Your task to perform on an android device: turn off javascript in the chrome app Image 0: 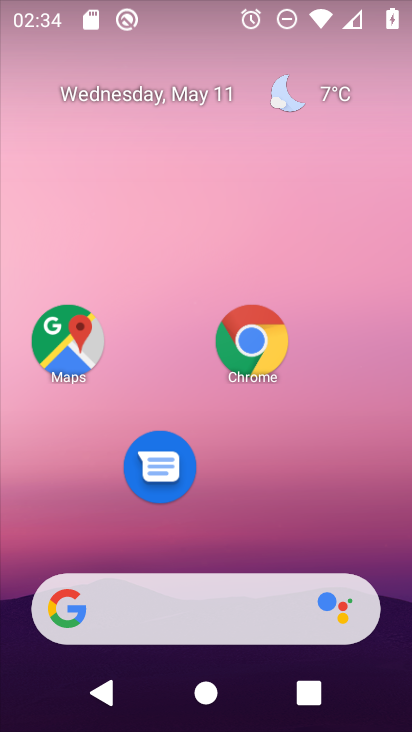
Step 0: press home button
Your task to perform on an android device: turn off javascript in the chrome app Image 1: 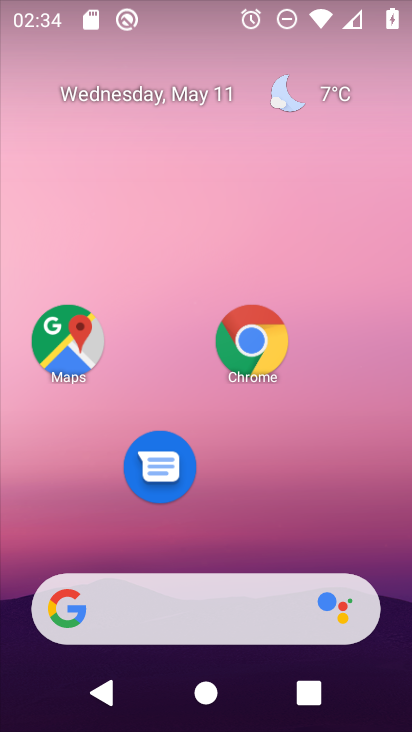
Step 1: drag from (194, 533) to (310, 66)
Your task to perform on an android device: turn off javascript in the chrome app Image 2: 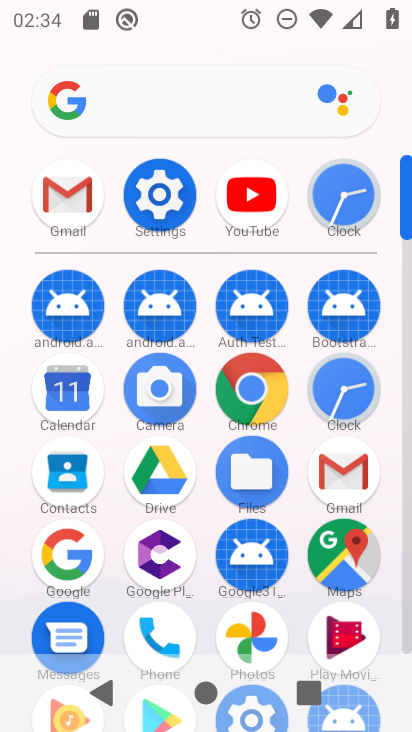
Step 2: click (243, 414)
Your task to perform on an android device: turn off javascript in the chrome app Image 3: 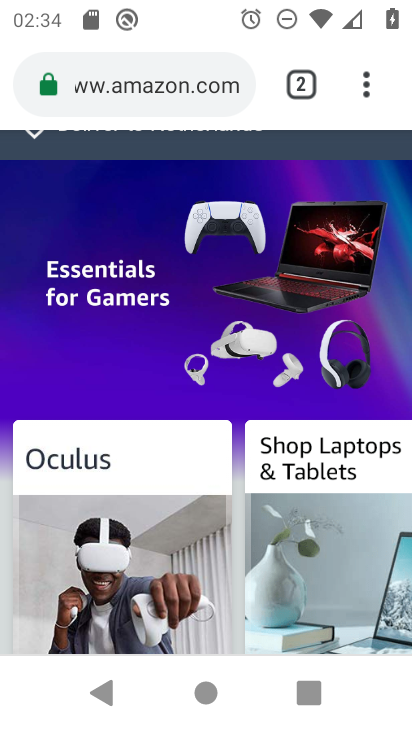
Step 3: drag from (367, 88) to (153, 523)
Your task to perform on an android device: turn off javascript in the chrome app Image 4: 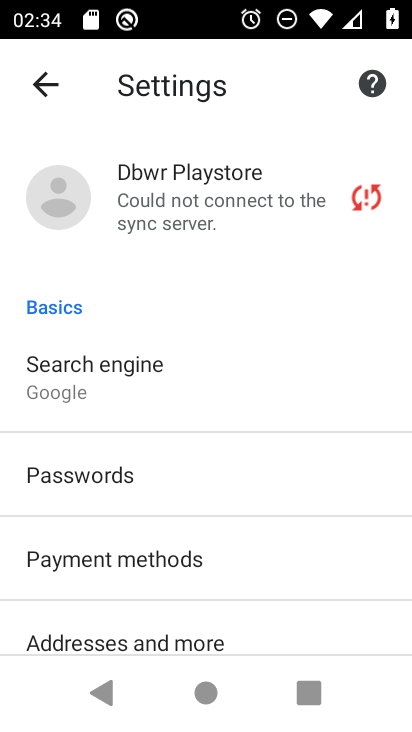
Step 4: drag from (235, 560) to (342, 235)
Your task to perform on an android device: turn off javascript in the chrome app Image 5: 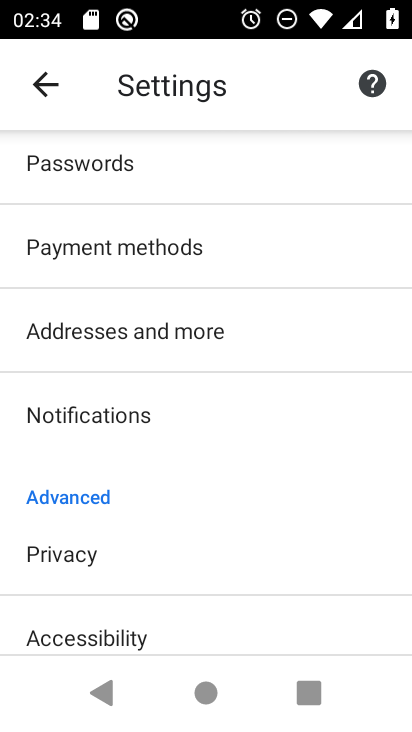
Step 5: drag from (270, 357) to (376, 113)
Your task to perform on an android device: turn off javascript in the chrome app Image 6: 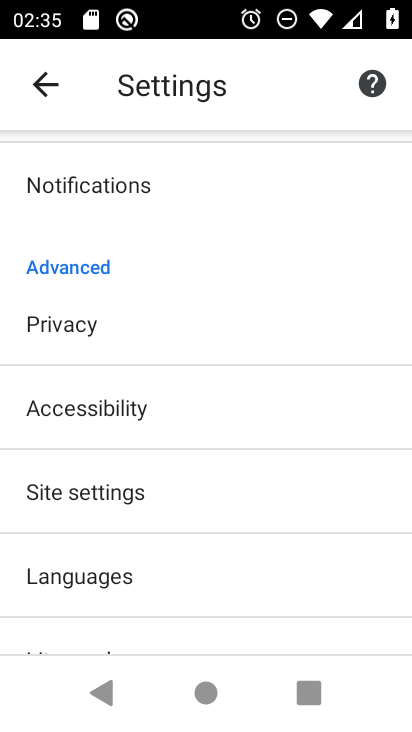
Step 6: click (111, 495)
Your task to perform on an android device: turn off javascript in the chrome app Image 7: 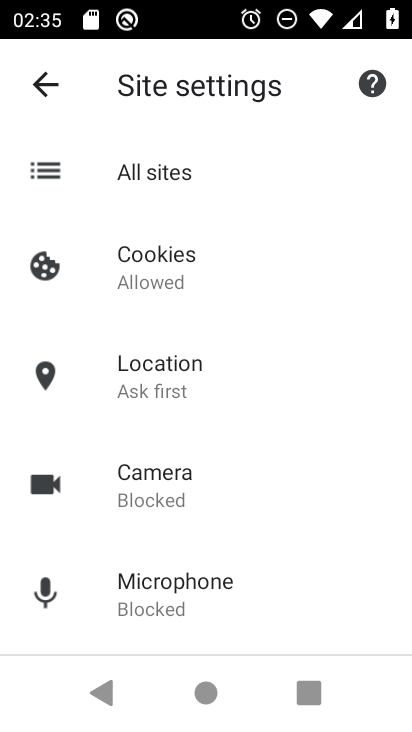
Step 7: drag from (281, 483) to (379, 140)
Your task to perform on an android device: turn off javascript in the chrome app Image 8: 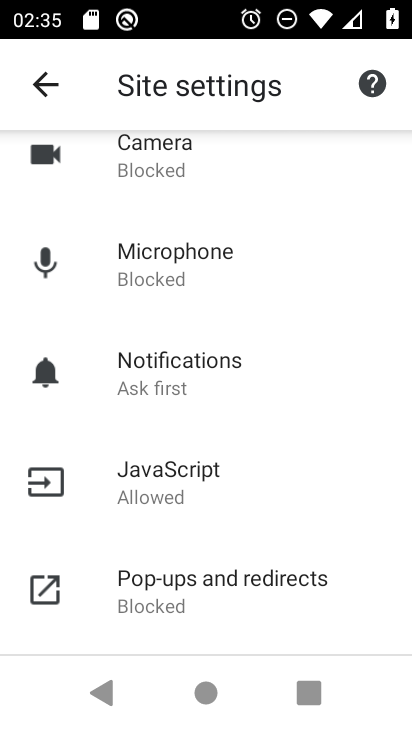
Step 8: click (191, 482)
Your task to perform on an android device: turn off javascript in the chrome app Image 9: 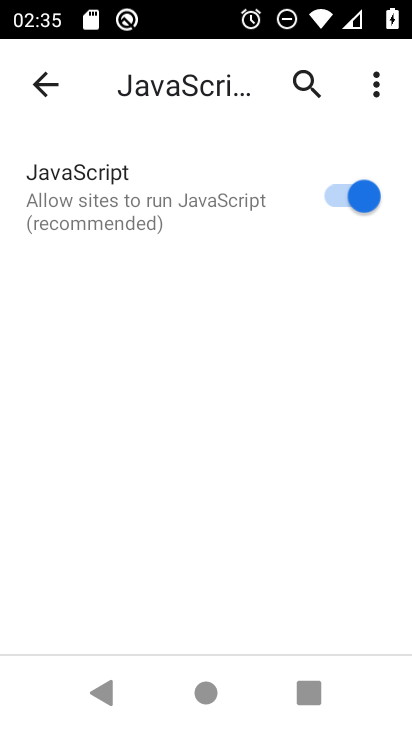
Step 9: click (341, 196)
Your task to perform on an android device: turn off javascript in the chrome app Image 10: 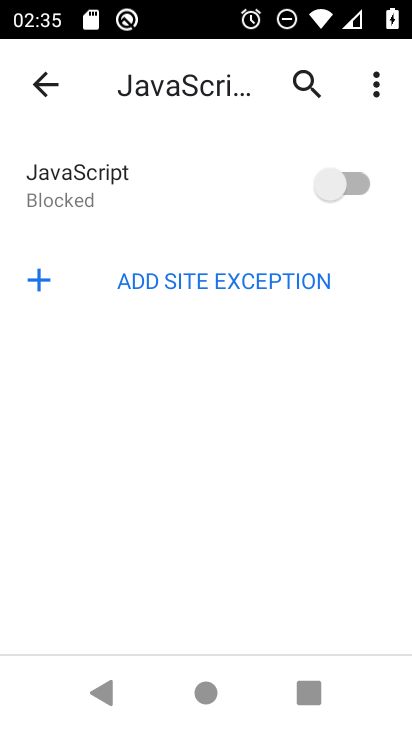
Step 10: task complete